Your task to perform on an android device: Open maps Image 0: 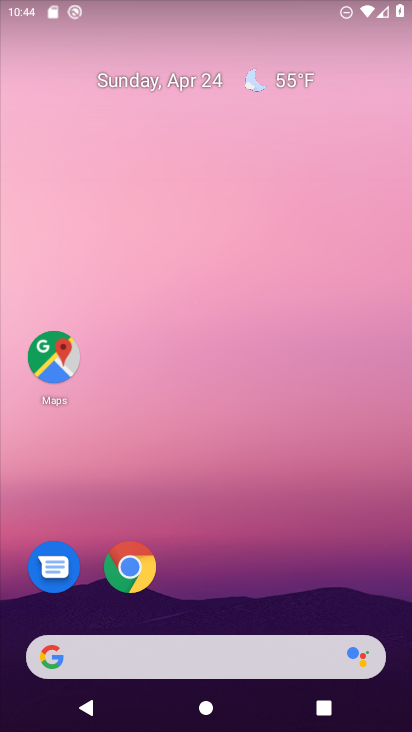
Step 0: click (60, 352)
Your task to perform on an android device: Open maps Image 1: 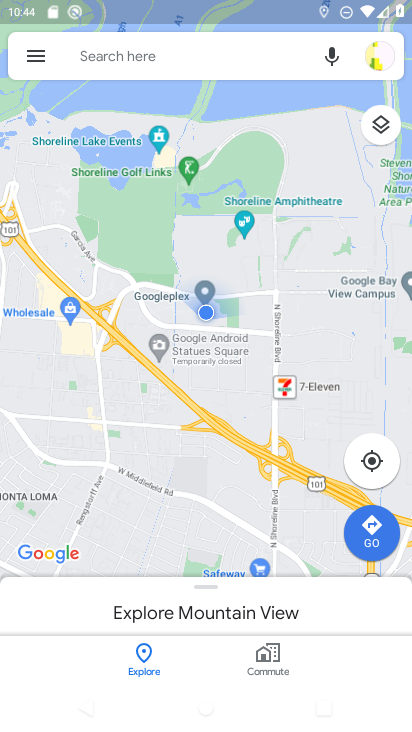
Step 1: click (96, 48)
Your task to perform on an android device: Open maps Image 2: 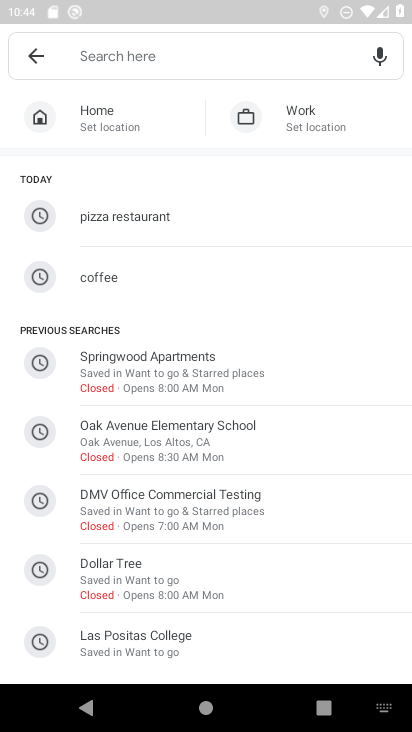
Step 2: click (24, 50)
Your task to perform on an android device: Open maps Image 3: 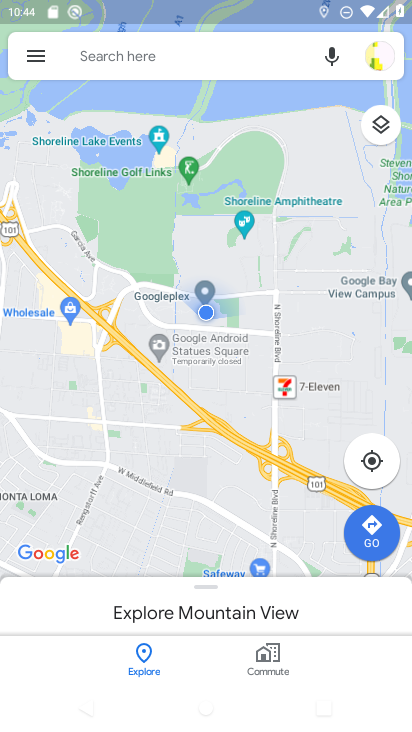
Step 3: task complete